Your task to perform on an android device: Open the calendar app, open the side menu, and click the "Day" option Image 0: 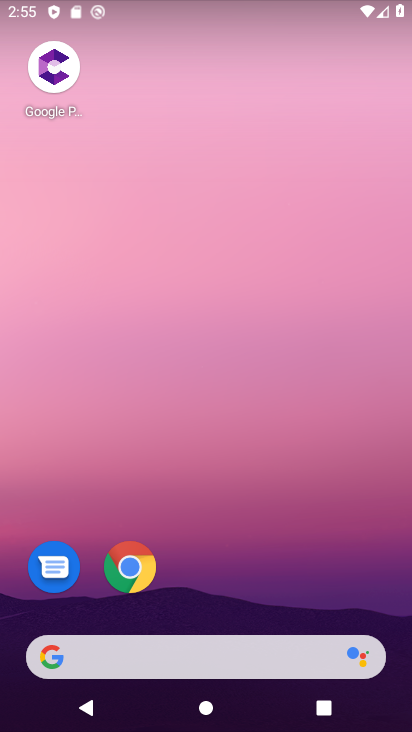
Step 0: drag from (122, 620) to (259, 237)
Your task to perform on an android device: Open the calendar app, open the side menu, and click the "Day" option Image 1: 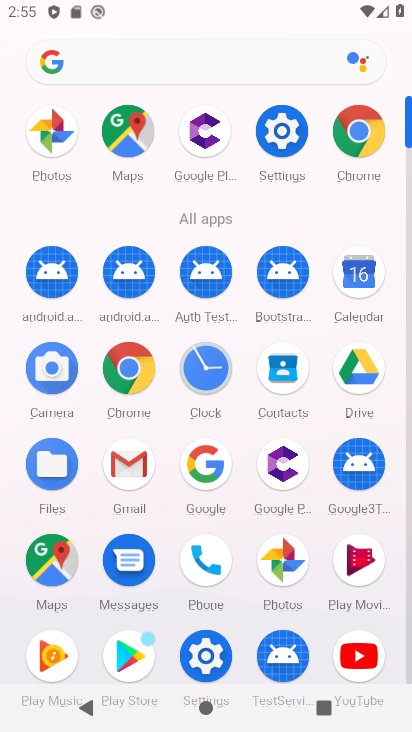
Step 1: click (371, 286)
Your task to perform on an android device: Open the calendar app, open the side menu, and click the "Day" option Image 2: 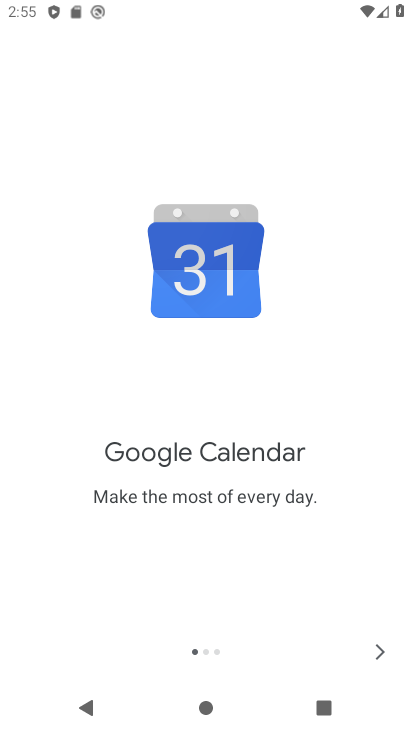
Step 2: click (363, 648)
Your task to perform on an android device: Open the calendar app, open the side menu, and click the "Day" option Image 3: 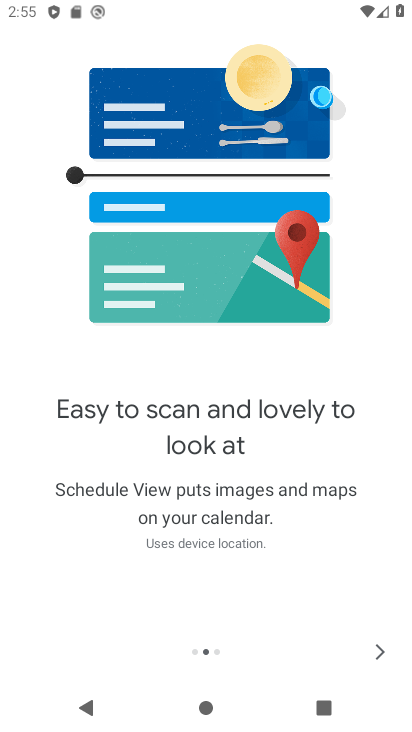
Step 3: click (346, 645)
Your task to perform on an android device: Open the calendar app, open the side menu, and click the "Day" option Image 4: 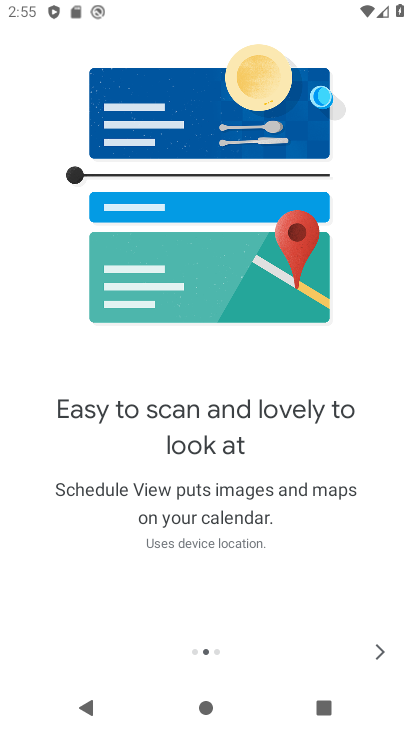
Step 4: click (385, 653)
Your task to perform on an android device: Open the calendar app, open the side menu, and click the "Day" option Image 5: 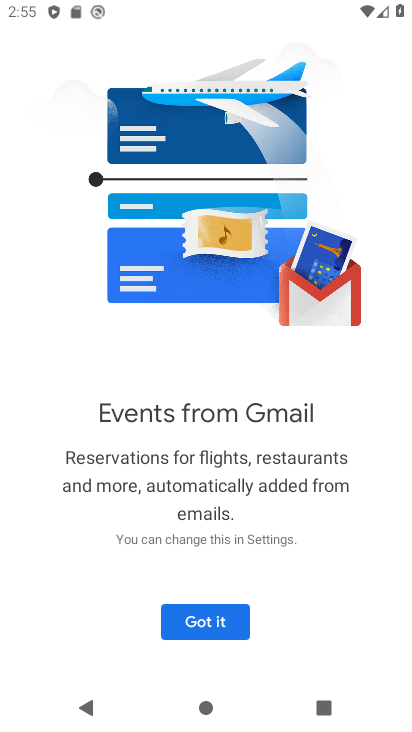
Step 5: click (181, 614)
Your task to perform on an android device: Open the calendar app, open the side menu, and click the "Day" option Image 6: 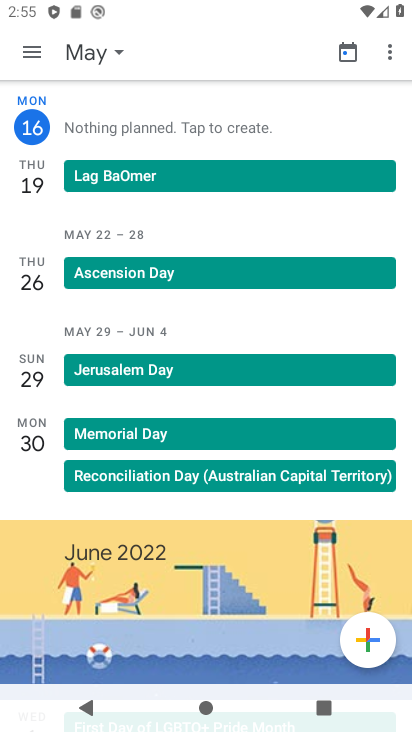
Step 6: click (36, 56)
Your task to perform on an android device: Open the calendar app, open the side menu, and click the "Day" option Image 7: 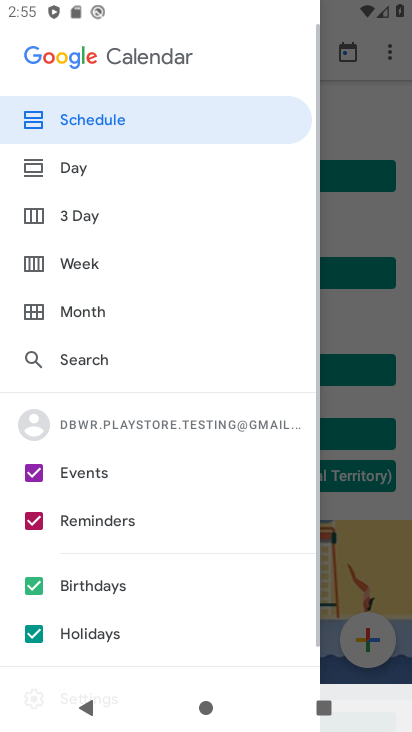
Step 7: click (104, 173)
Your task to perform on an android device: Open the calendar app, open the side menu, and click the "Day" option Image 8: 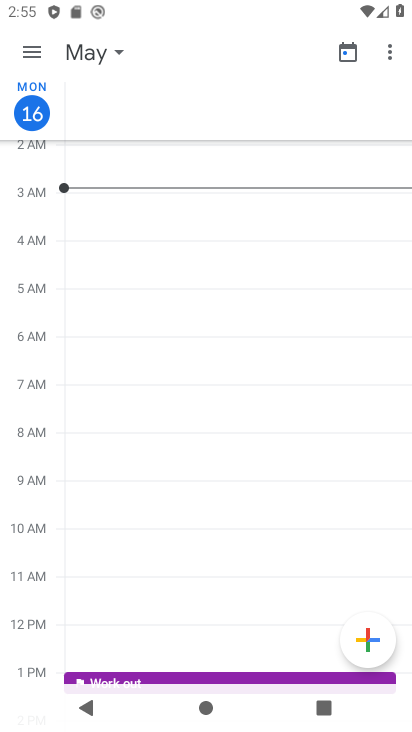
Step 8: click (37, 46)
Your task to perform on an android device: Open the calendar app, open the side menu, and click the "Day" option Image 9: 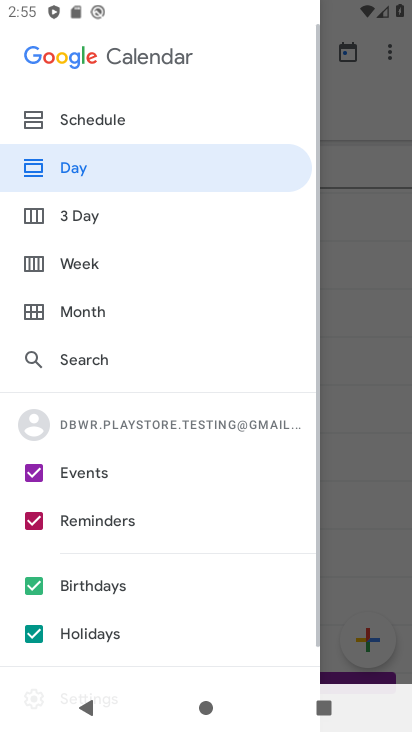
Step 9: click (110, 164)
Your task to perform on an android device: Open the calendar app, open the side menu, and click the "Day" option Image 10: 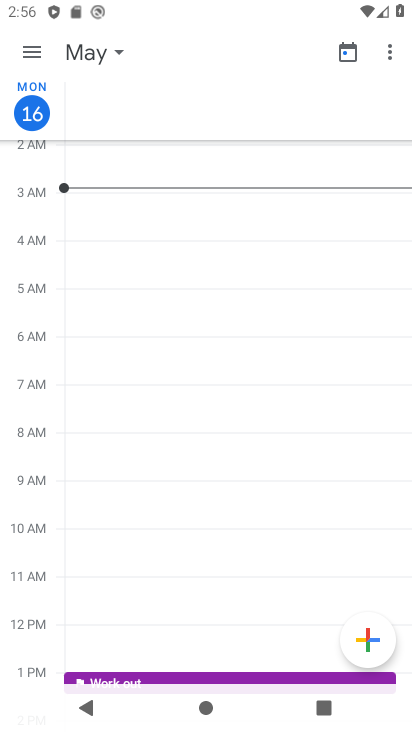
Step 10: task complete